Your task to perform on an android device: What is the news today? Image 0: 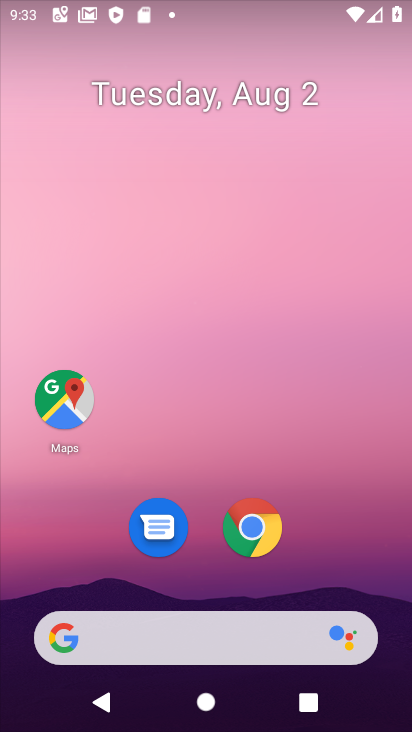
Step 0: drag from (179, 578) to (164, 219)
Your task to perform on an android device: What is the news today? Image 1: 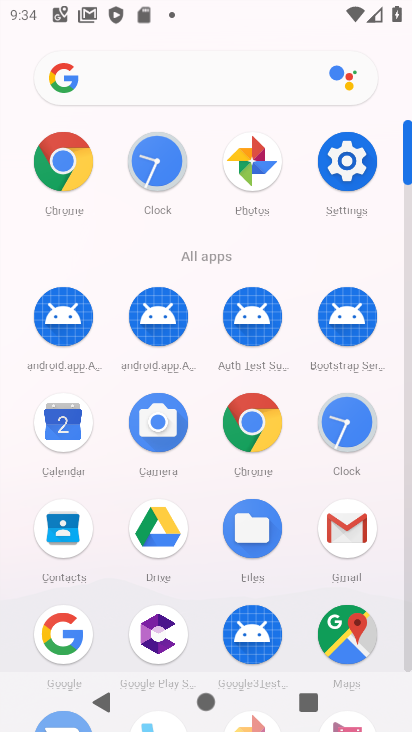
Step 1: click (70, 635)
Your task to perform on an android device: What is the news today? Image 2: 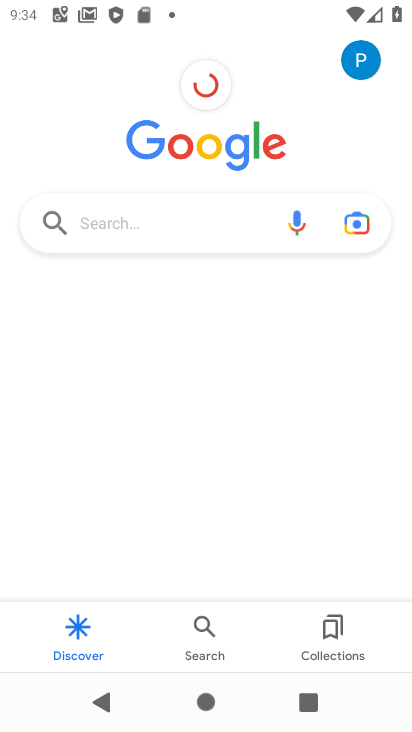
Step 2: click (165, 209)
Your task to perform on an android device: What is the news today? Image 3: 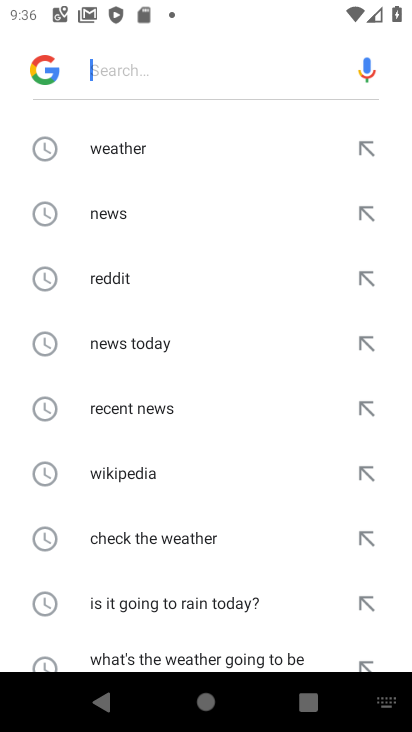
Step 3: drag from (136, 628) to (110, 175)
Your task to perform on an android device: What is the news today? Image 4: 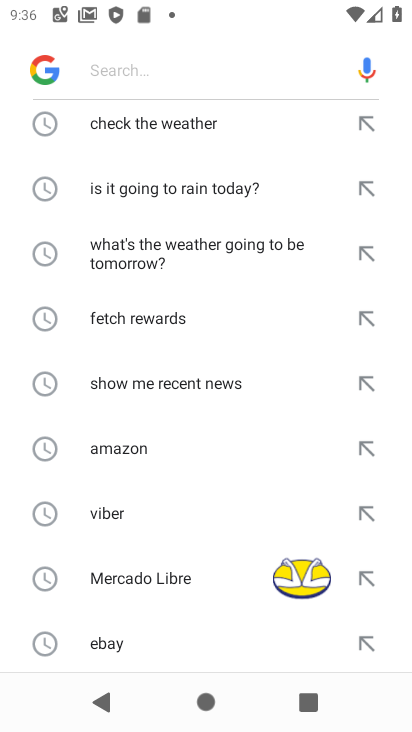
Step 4: drag from (139, 614) to (128, 284)
Your task to perform on an android device: What is the news today? Image 5: 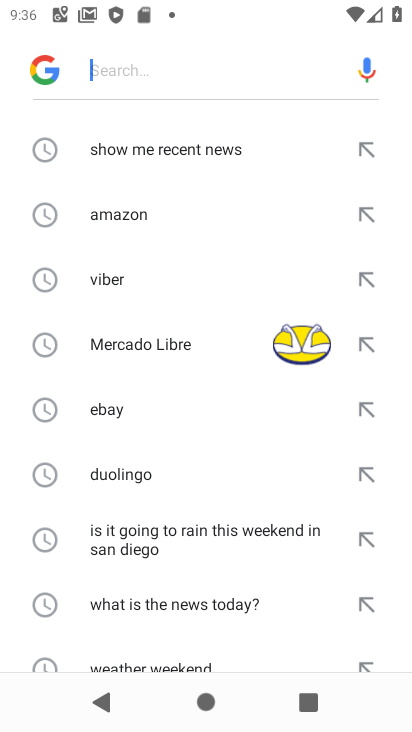
Step 5: drag from (135, 612) to (111, 359)
Your task to perform on an android device: What is the news today? Image 6: 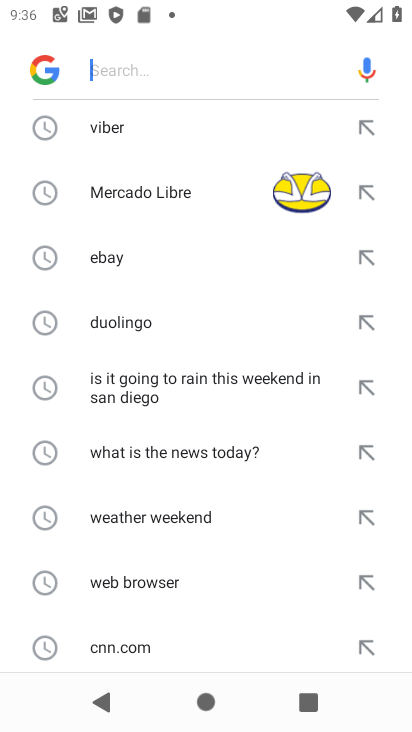
Step 6: click (140, 455)
Your task to perform on an android device: What is the news today? Image 7: 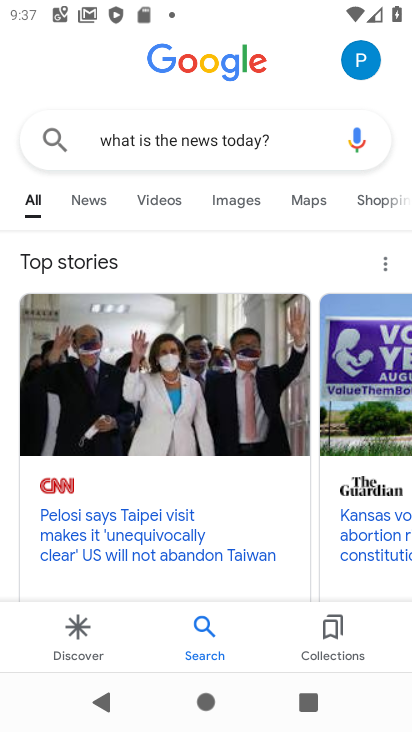
Step 7: task complete